Your task to perform on an android device: turn on translation in the chrome app Image 0: 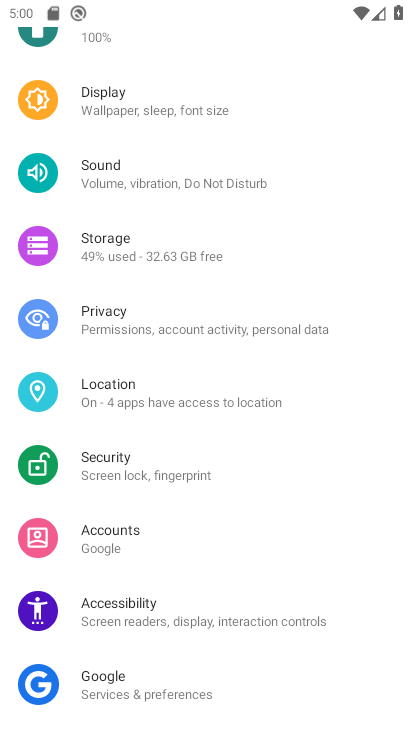
Step 0: press home button
Your task to perform on an android device: turn on translation in the chrome app Image 1: 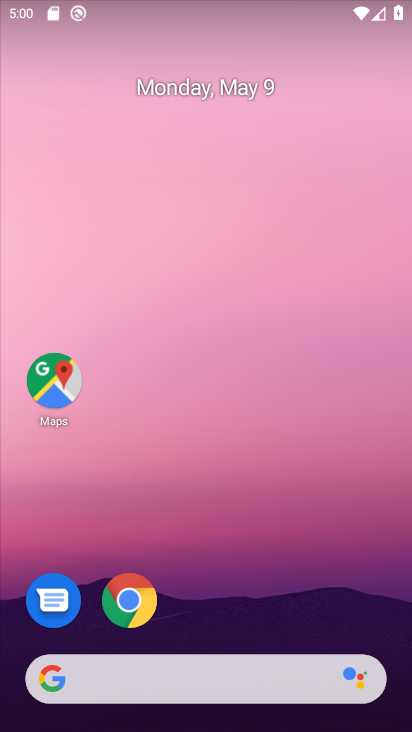
Step 1: drag from (276, 663) to (223, 79)
Your task to perform on an android device: turn on translation in the chrome app Image 2: 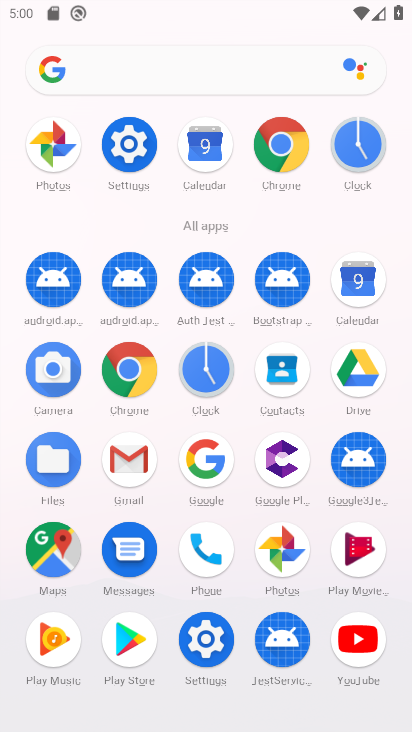
Step 2: click (149, 366)
Your task to perform on an android device: turn on translation in the chrome app Image 3: 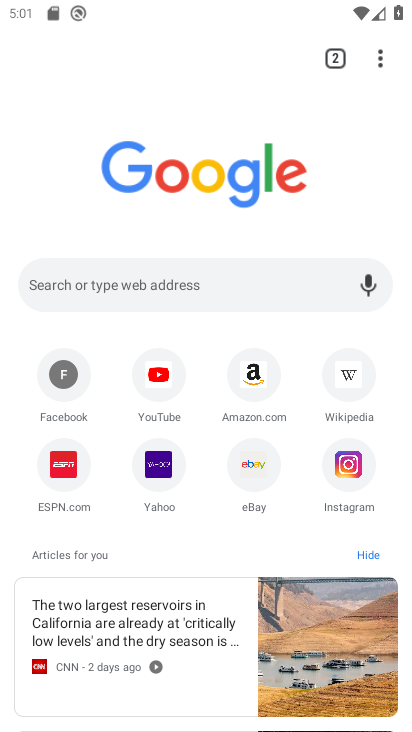
Step 3: click (374, 55)
Your task to perform on an android device: turn on translation in the chrome app Image 4: 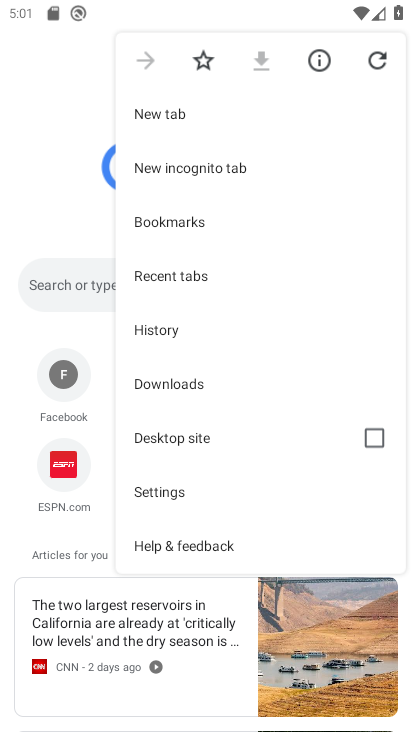
Step 4: click (189, 500)
Your task to perform on an android device: turn on translation in the chrome app Image 5: 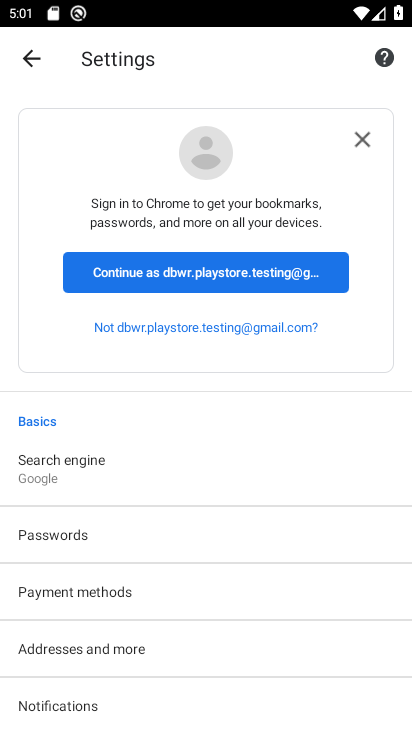
Step 5: drag from (171, 681) to (108, 200)
Your task to perform on an android device: turn on translation in the chrome app Image 6: 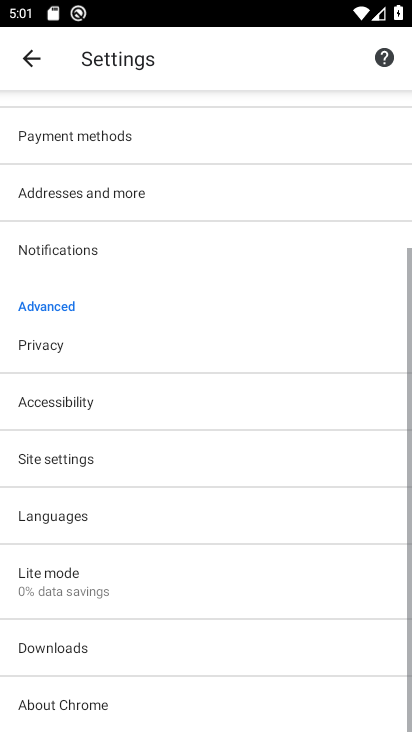
Step 6: click (92, 459)
Your task to perform on an android device: turn on translation in the chrome app Image 7: 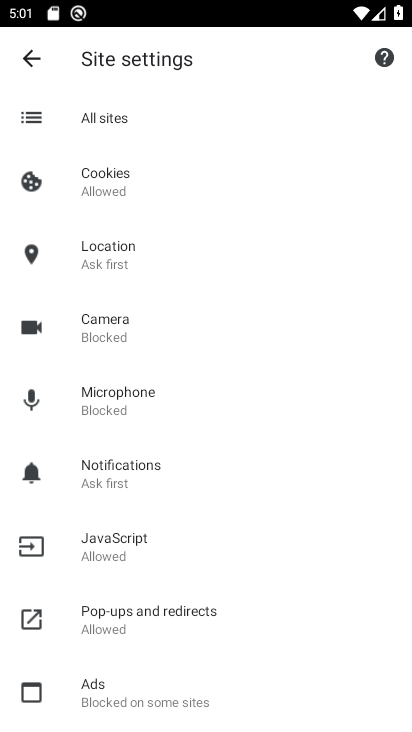
Step 7: press back button
Your task to perform on an android device: turn on translation in the chrome app Image 8: 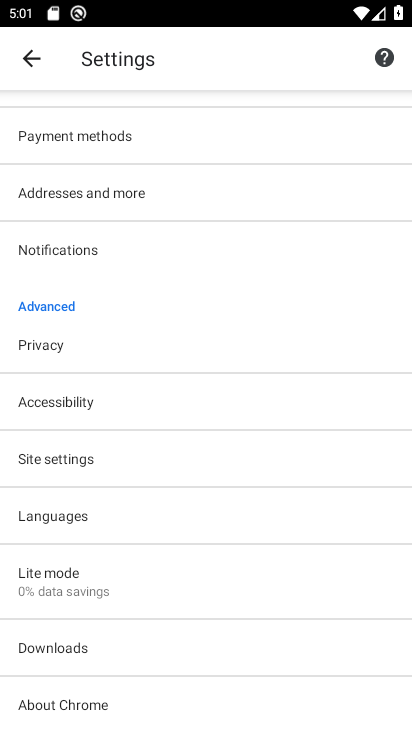
Step 8: click (95, 526)
Your task to perform on an android device: turn on translation in the chrome app Image 9: 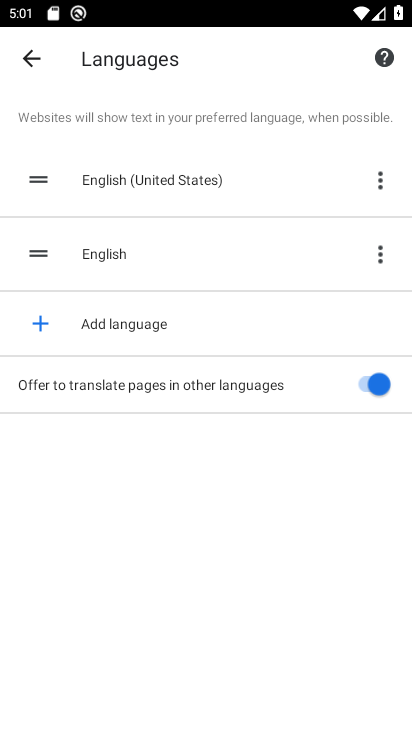
Step 9: task complete